Your task to perform on an android device: Open Google Chrome Image 0: 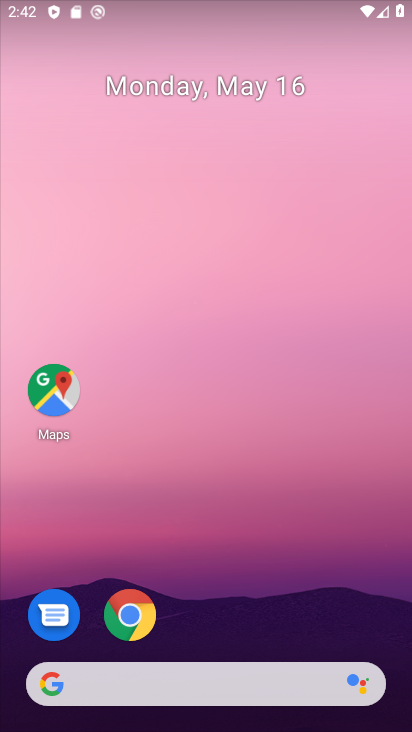
Step 0: click (137, 622)
Your task to perform on an android device: Open Google Chrome Image 1: 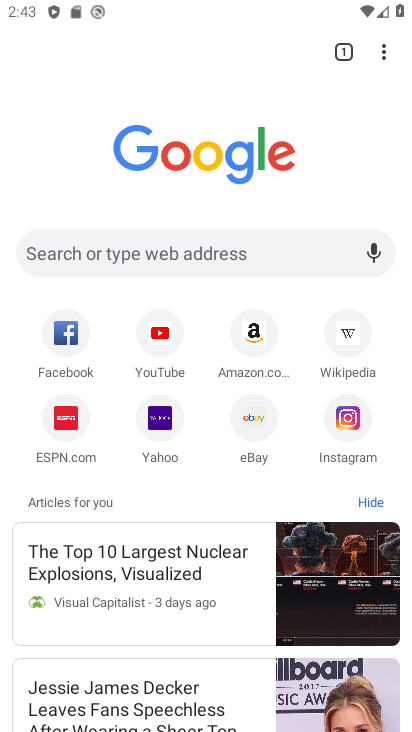
Step 1: task complete